Your task to perform on an android device: What's on the menu at IHOP? Image 0: 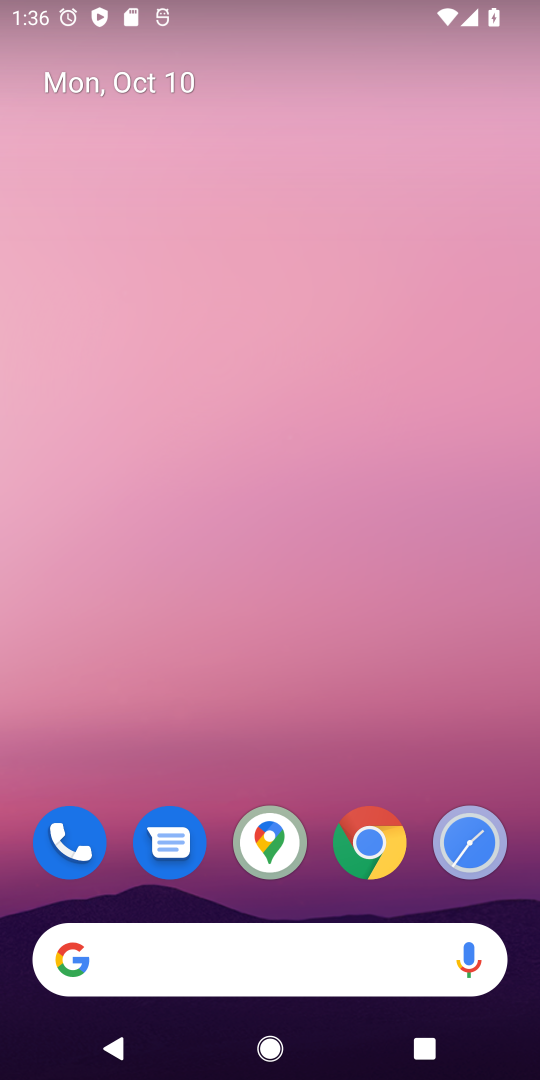
Step 0: click (371, 835)
Your task to perform on an android device: What's on the menu at IHOP? Image 1: 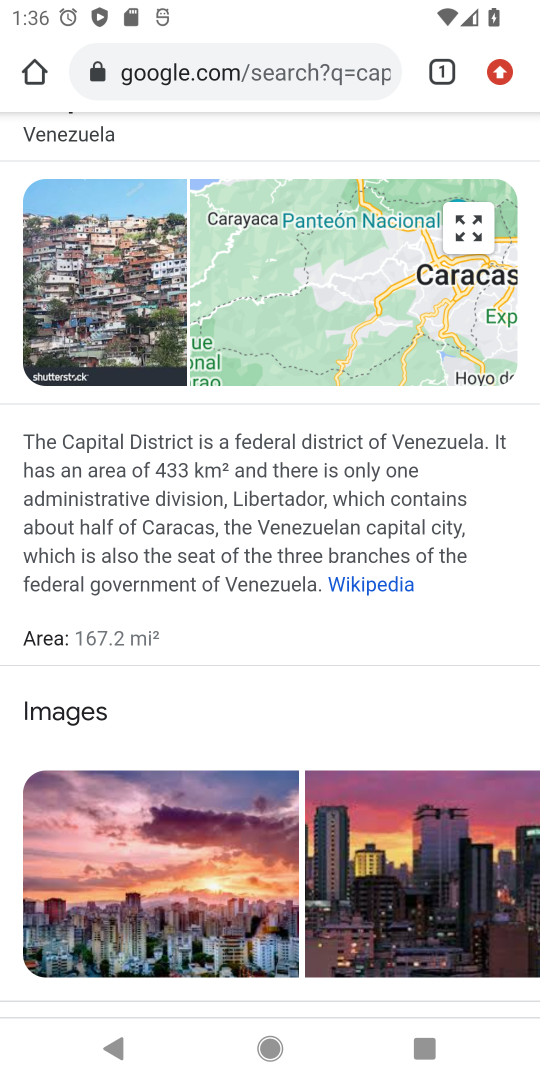
Step 1: drag from (251, 578) to (296, 494)
Your task to perform on an android device: What's on the menu at IHOP? Image 2: 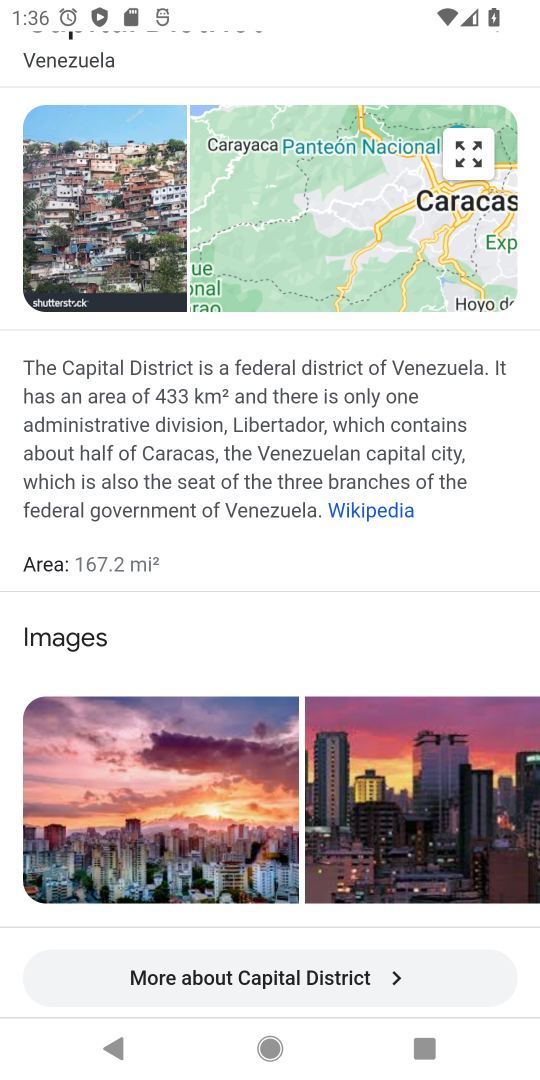
Step 2: drag from (456, 517) to (473, 370)
Your task to perform on an android device: What's on the menu at IHOP? Image 3: 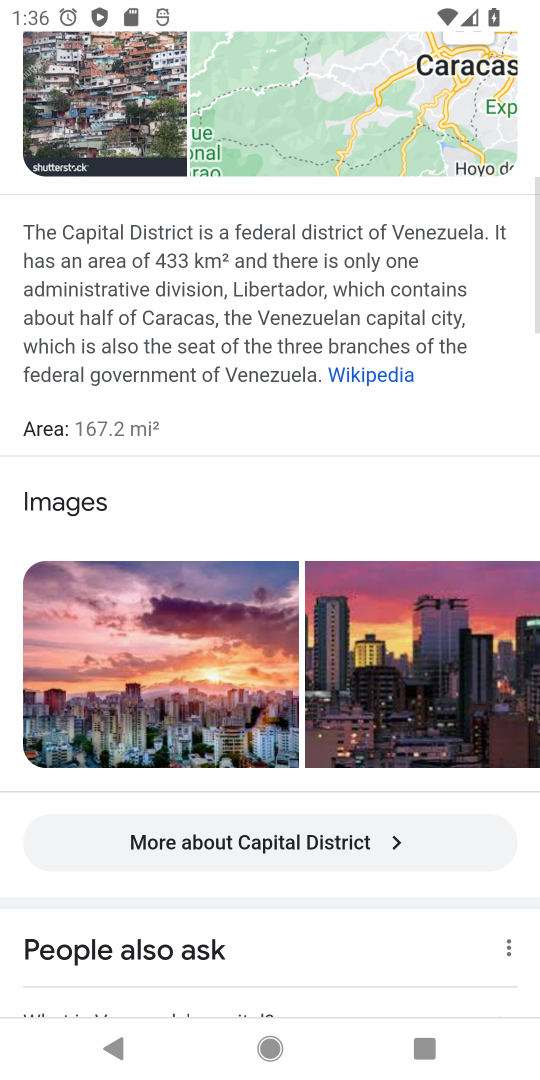
Step 3: drag from (446, 522) to (475, 334)
Your task to perform on an android device: What's on the menu at IHOP? Image 4: 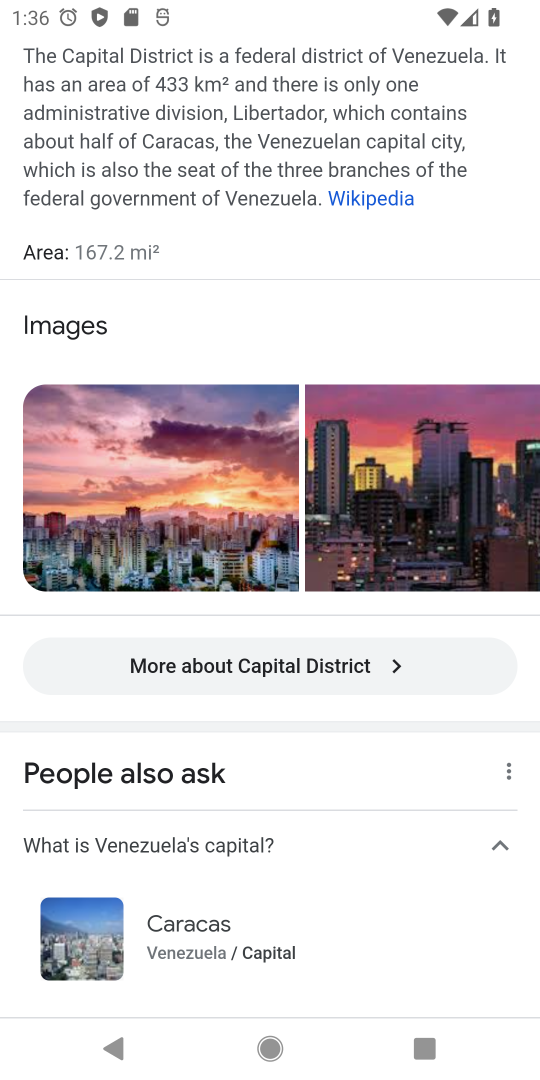
Step 4: drag from (391, 587) to (428, 379)
Your task to perform on an android device: What's on the menu at IHOP? Image 5: 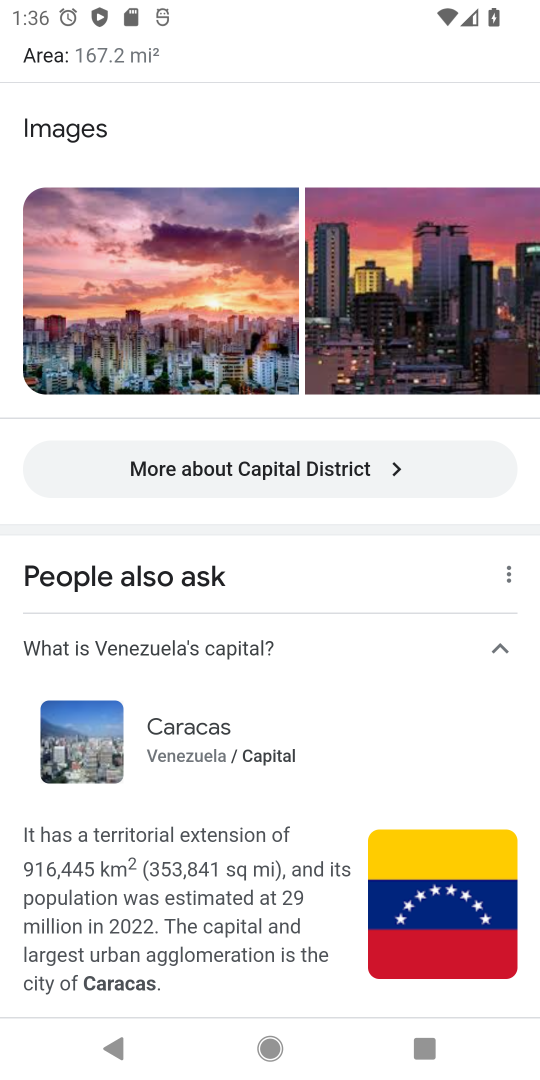
Step 5: drag from (331, 394) to (305, 788)
Your task to perform on an android device: What's on the menu at IHOP? Image 6: 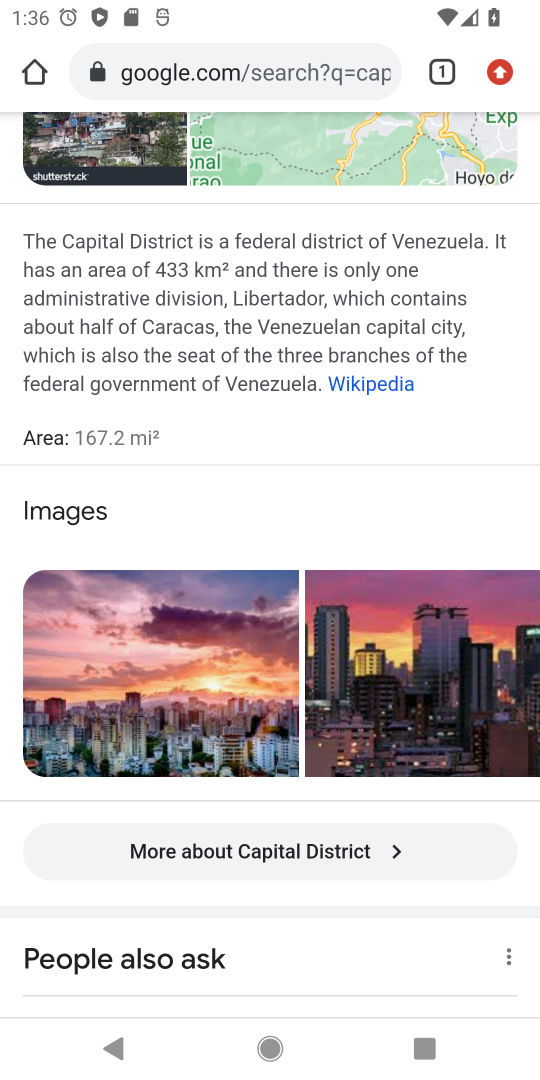
Step 6: click (229, 74)
Your task to perform on an android device: What's on the menu at IHOP? Image 7: 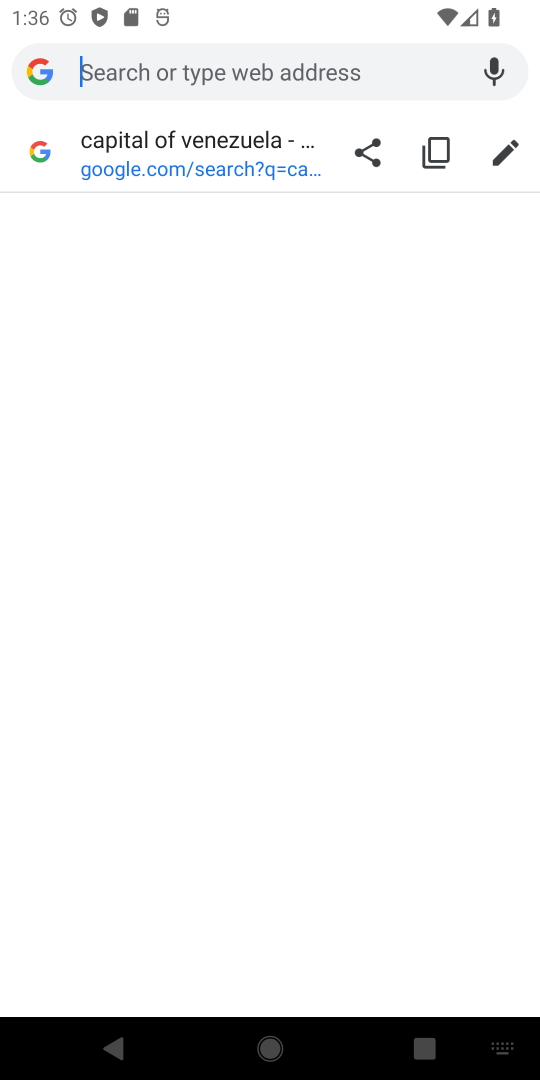
Step 7: type "ihop"
Your task to perform on an android device: What's on the menu at IHOP? Image 8: 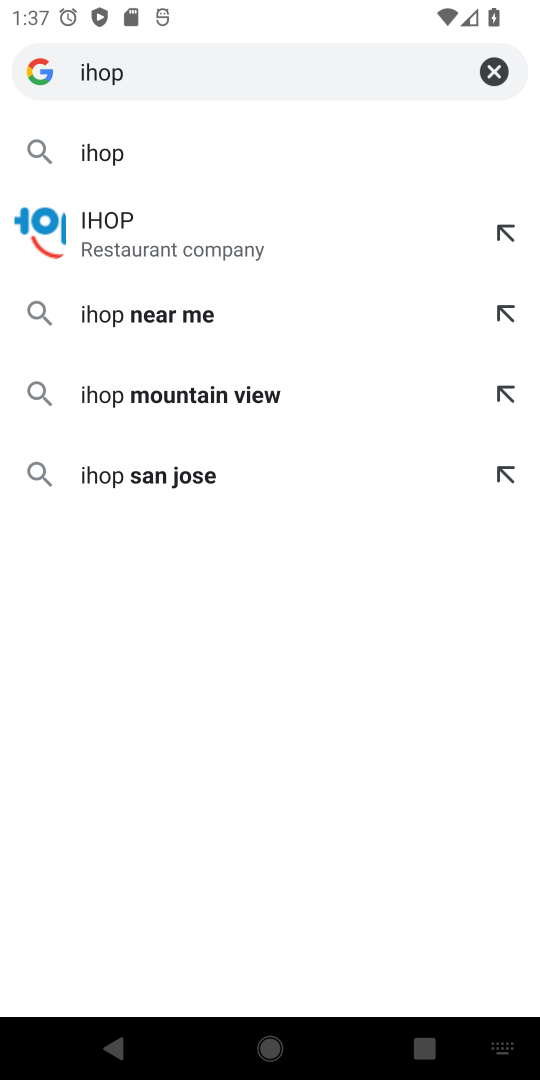
Step 8: click (190, 142)
Your task to perform on an android device: What's on the menu at IHOP? Image 9: 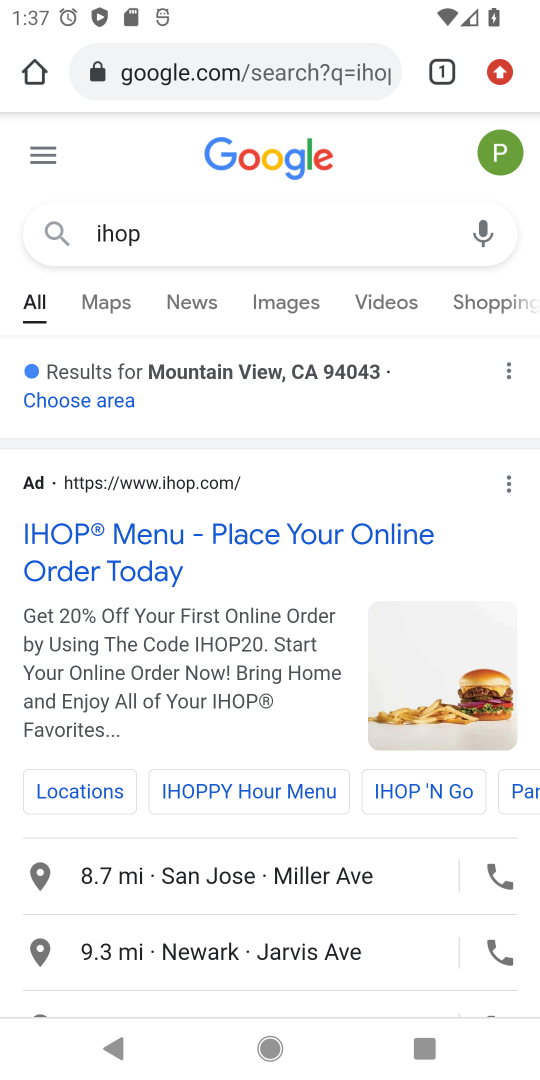
Step 9: click (126, 539)
Your task to perform on an android device: What's on the menu at IHOP? Image 10: 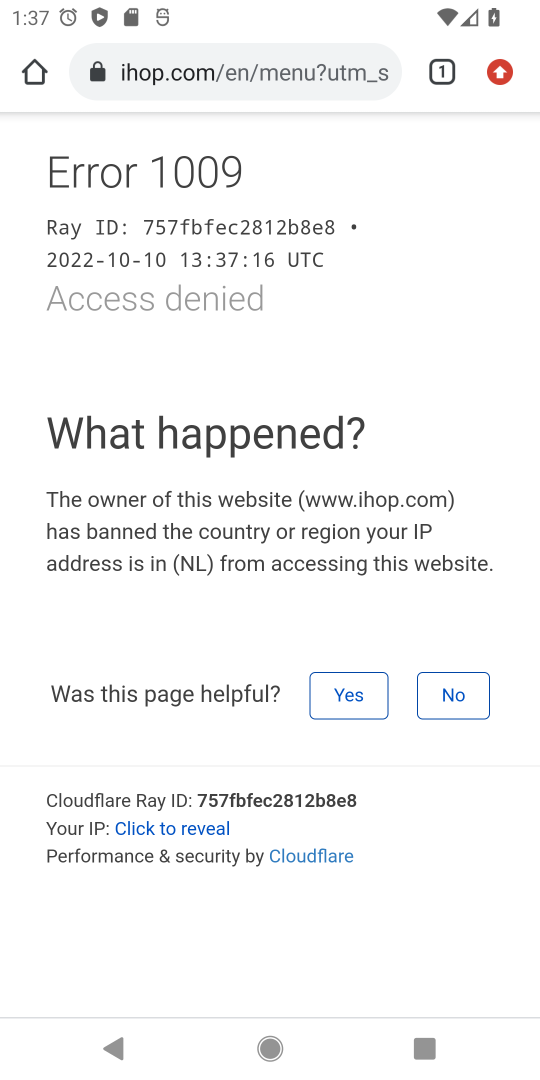
Step 10: task complete